Your task to perform on an android device: turn off location history Image 0: 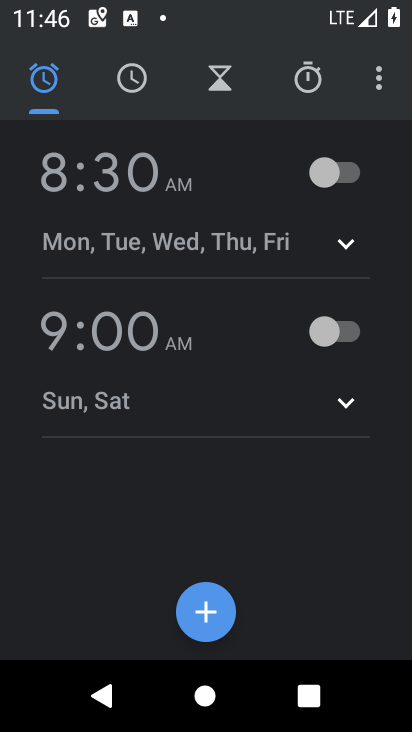
Step 0: press home button
Your task to perform on an android device: turn off location history Image 1: 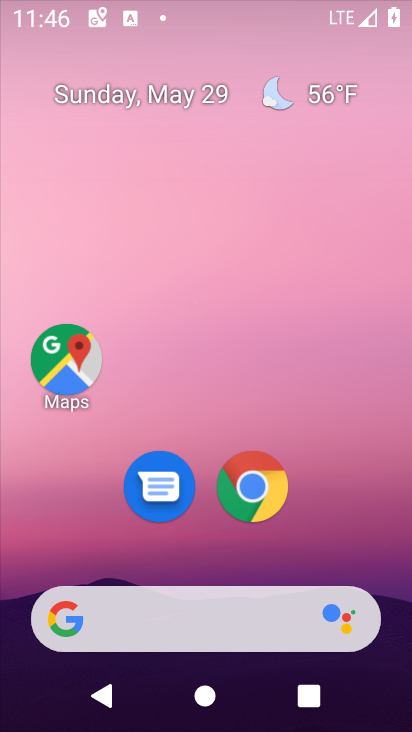
Step 1: drag from (283, 628) to (310, 183)
Your task to perform on an android device: turn off location history Image 2: 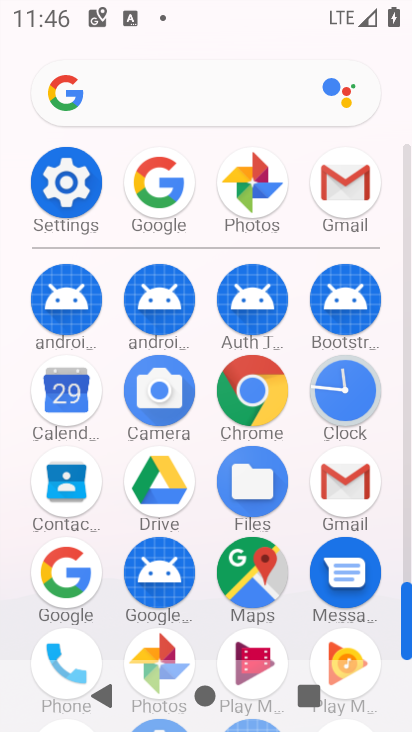
Step 2: click (43, 199)
Your task to perform on an android device: turn off location history Image 3: 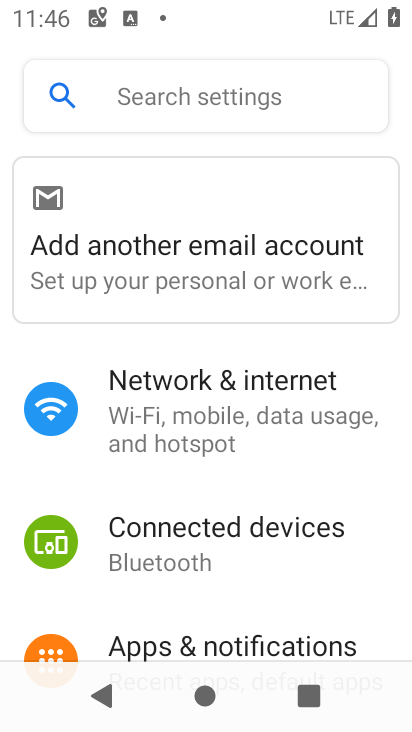
Step 3: drag from (200, 545) to (257, 187)
Your task to perform on an android device: turn off location history Image 4: 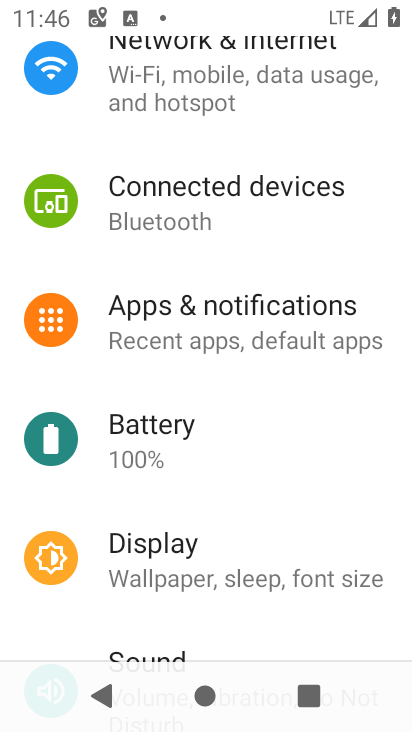
Step 4: drag from (218, 577) to (219, 256)
Your task to perform on an android device: turn off location history Image 5: 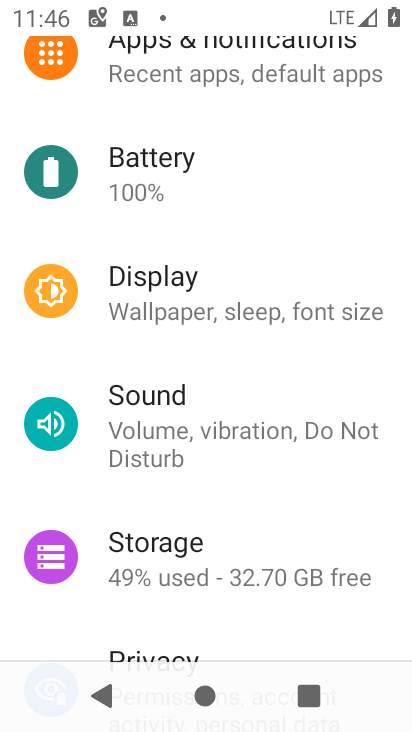
Step 5: drag from (219, 383) to (237, 228)
Your task to perform on an android device: turn off location history Image 6: 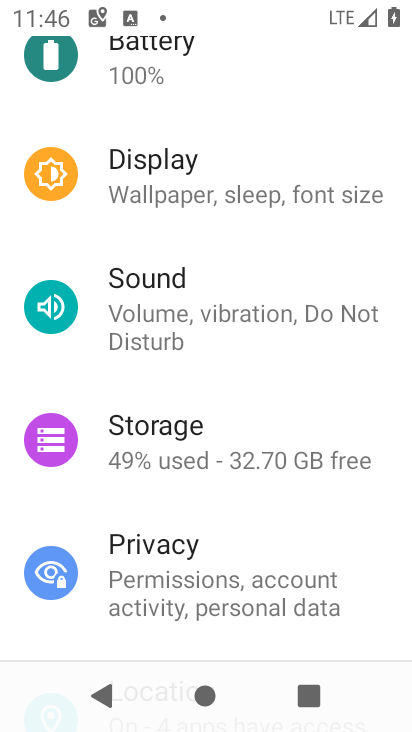
Step 6: drag from (204, 523) to (258, 115)
Your task to perform on an android device: turn off location history Image 7: 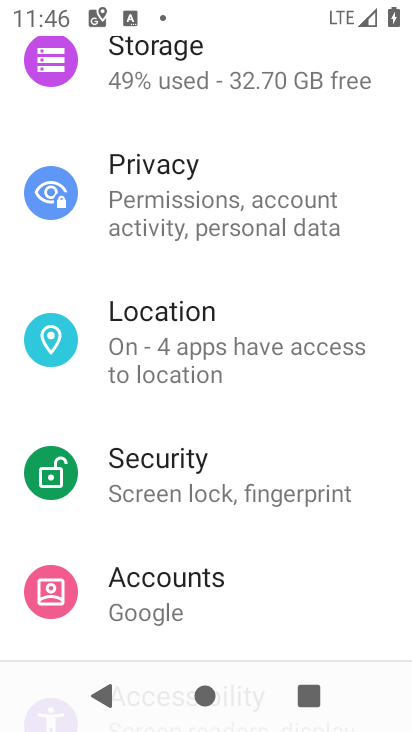
Step 7: drag from (239, 530) to (236, 366)
Your task to perform on an android device: turn off location history Image 8: 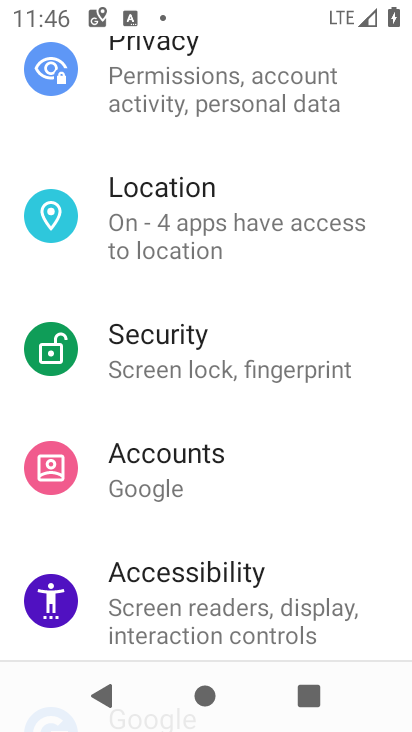
Step 8: click (232, 250)
Your task to perform on an android device: turn off location history Image 9: 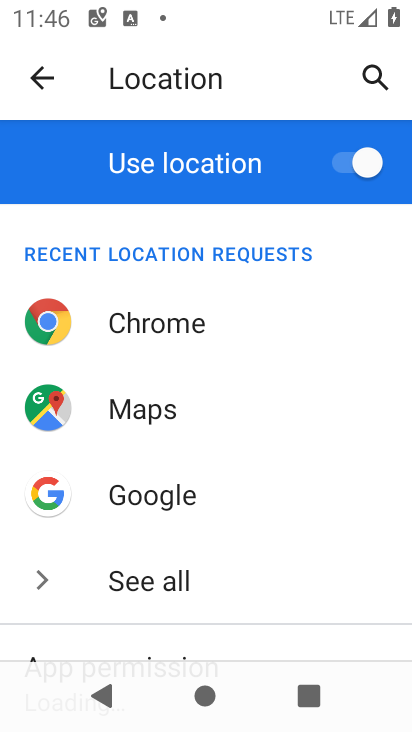
Step 9: drag from (211, 580) to (229, 176)
Your task to perform on an android device: turn off location history Image 10: 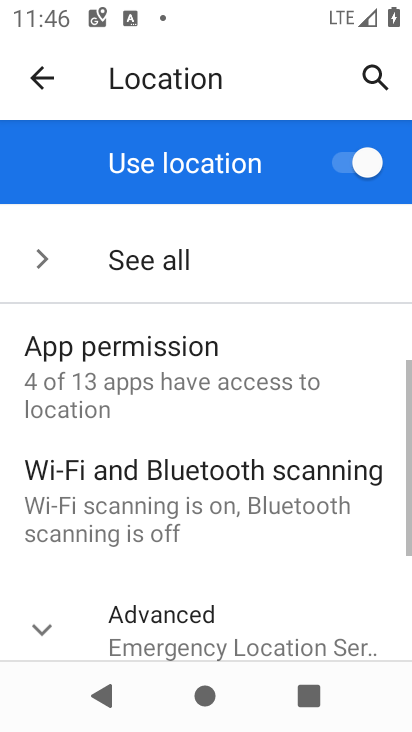
Step 10: click (208, 608)
Your task to perform on an android device: turn off location history Image 11: 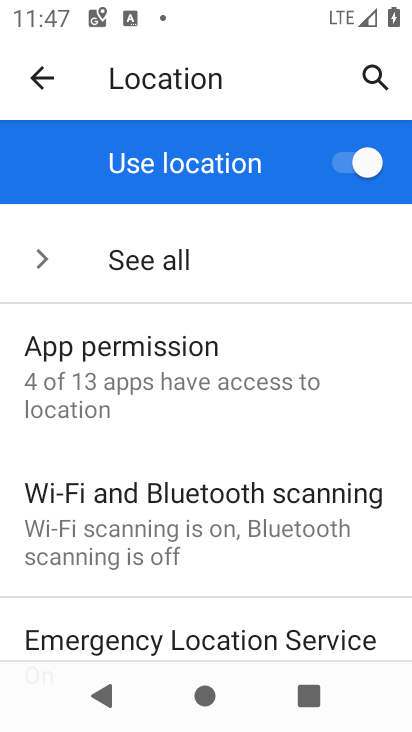
Step 11: drag from (197, 609) to (266, 229)
Your task to perform on an android device: turn off location history Image 12: 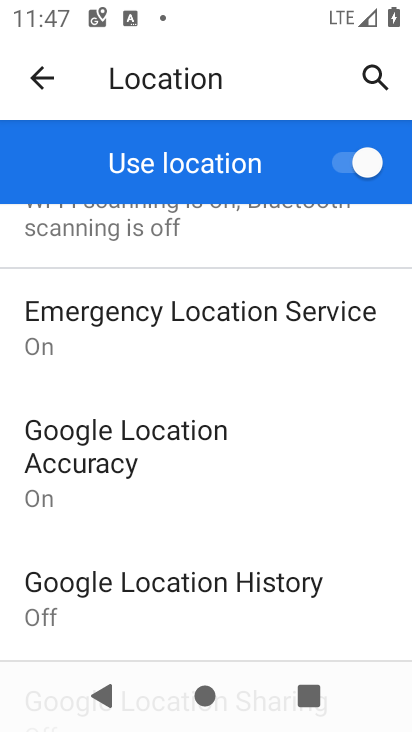
Step 12: click (247, 577)
Your task to perform on an android device: turn off location history Image 13: 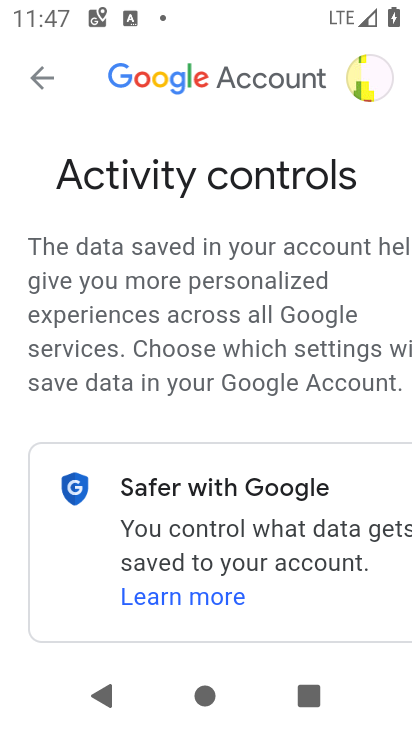
Step 13: task complete